Your task to perform on an android device: Go to eBay Image 0: 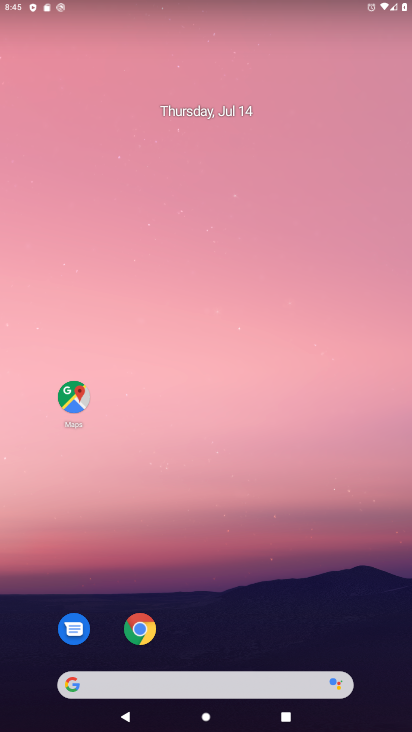
Step 0: click (135, 631)
Your task to perform on an android device: Go to eBay Image 1: 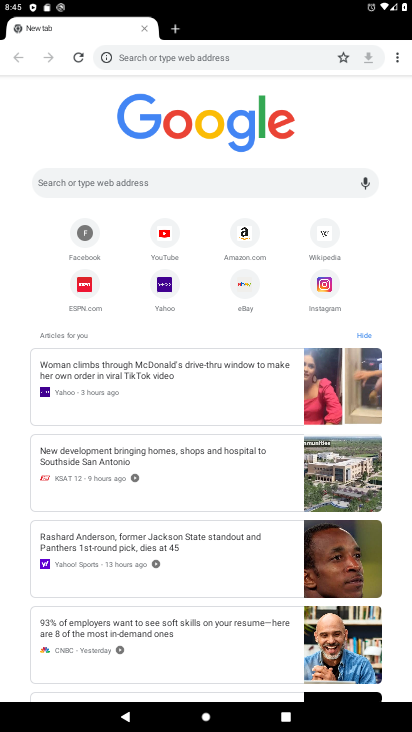
Step 1: click (153, 180)
Your task to perform on an android device: Go to eBay Image 2: 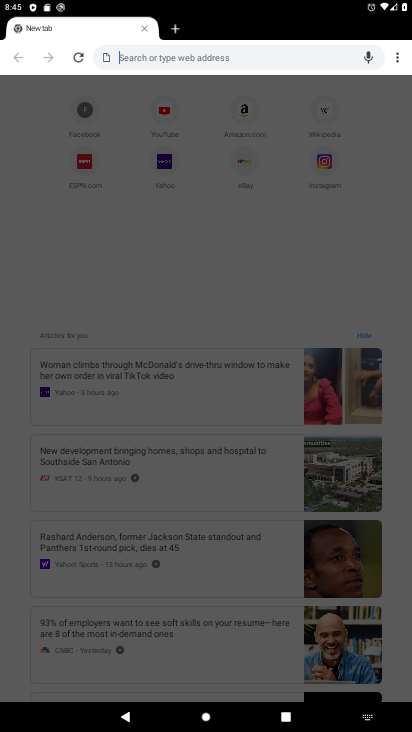
Step 2: type "ebay"
Your task to perform on an android device: Go to eBay Image 3: 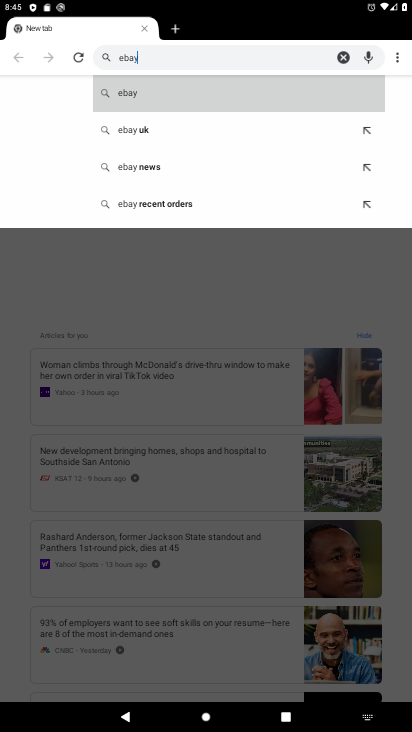
Step 3: click (221, 96)
Your task to perform on an android device: Go to eBay Image 4: 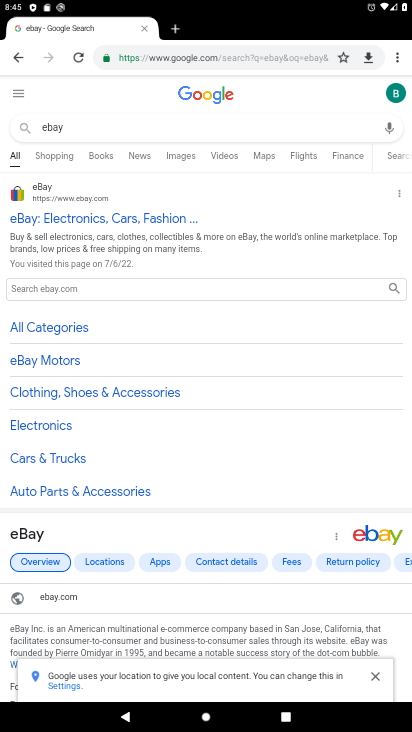
Step 4: click (64, 220)
Your task to perform on an android device: Go to eBay Image 5: 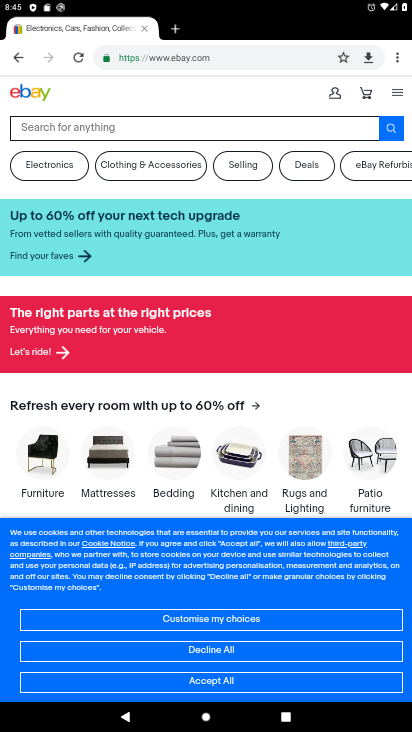
Step 5: task complete